Your task to perform on an android device: open app "Mercado Libre" Image 0: 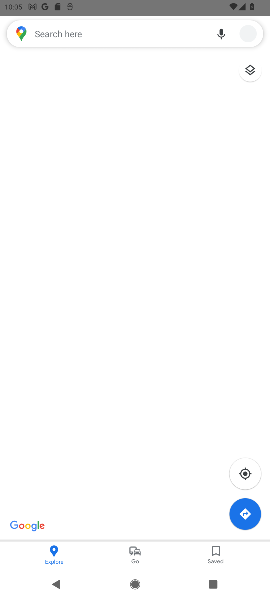
Step 0: press home button
Your task to perform on an android device: open app "Mercado Libre" Image 1: 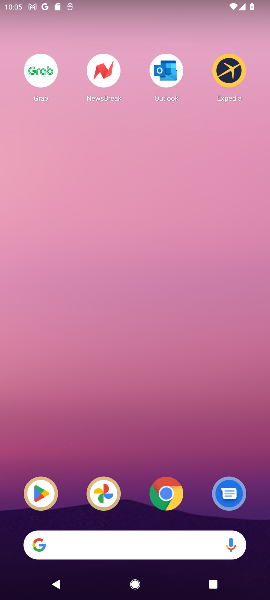
Step 1: click (87, 544)
Your task to perform on an android device: open app "Mercado Libre" Image 2: 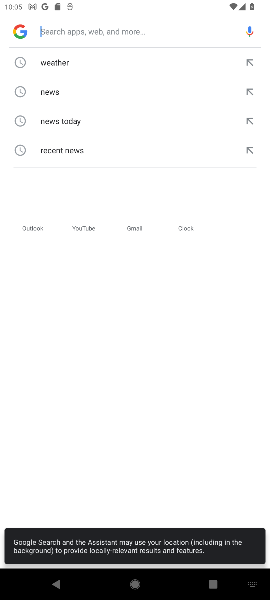
Step 2: type "flipkart"
Your task to perform on an android device: open app "Mercado Libre" Image 3: 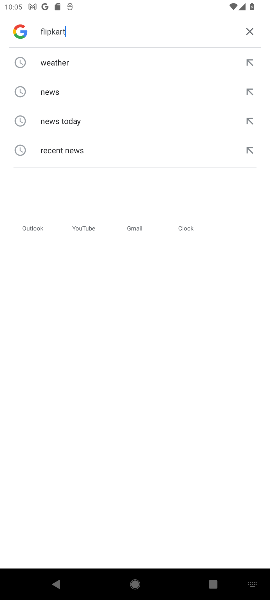
Step 3: click (94, 60)
Your task to perform on an android device: open app "Mercado Libre" Image 4: 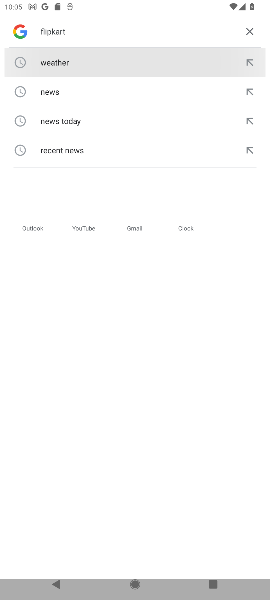
Step 4: task complete